Your task to perform on an android device: Do I have any events this weekend? Image 0: 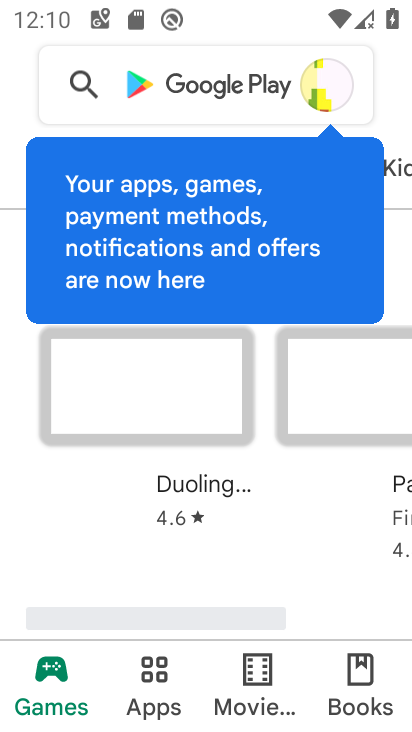
Step 0: press home button
Your task to perform on an android device: Do I have any events this weekend? Image 1: 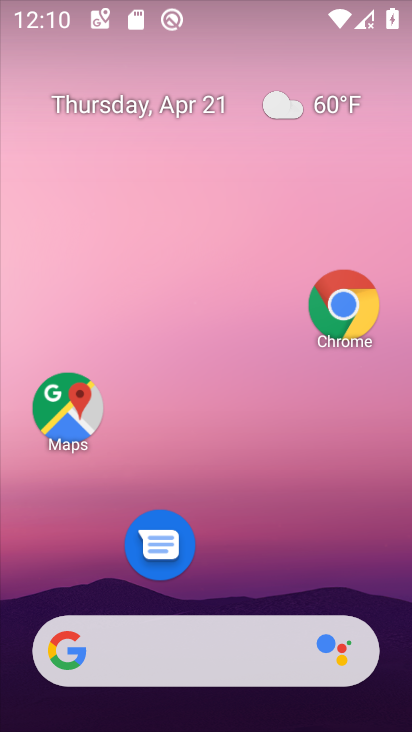
Step 1: drag from (271, 642) to (197, 32)
Your task to perform on an android device: Do I have any events this weekend? Image 2: 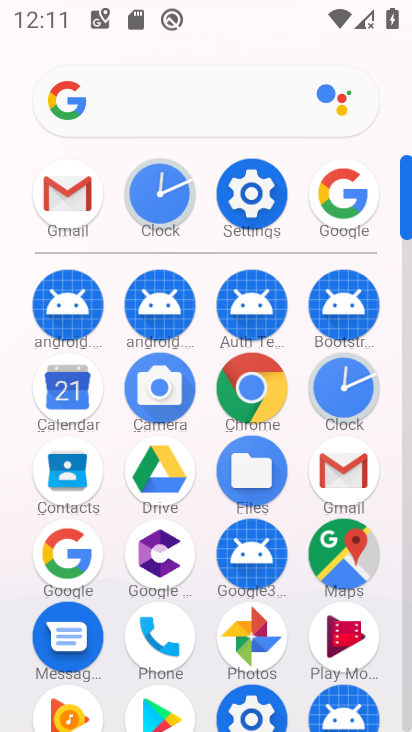
Step 2: drag from (200, 504) to (189, 357)
Your task to perform on an android device: Do I have any events this weekend? Image 3: 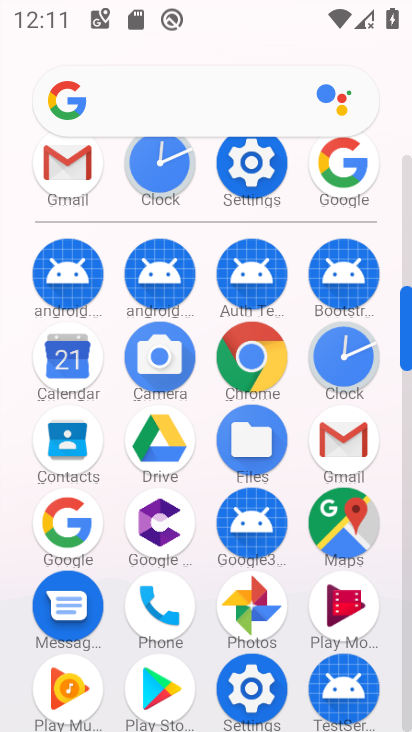
Step 3: click (77, 367)
Your task to perform on an android device: Do I have any events this weekend? Image 4: 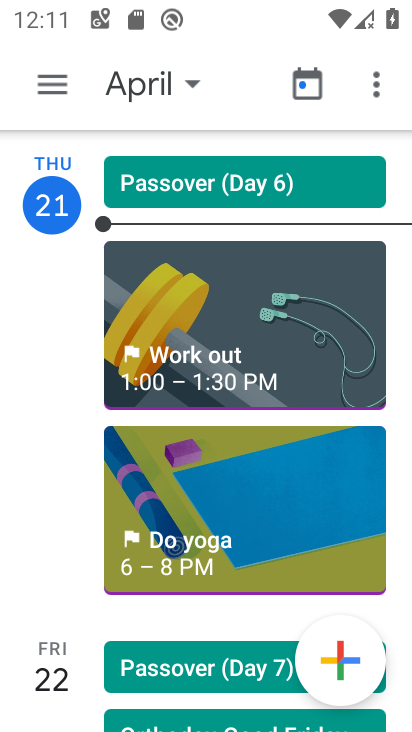
Step 4: click (184, 90)
Your task to perform on an android device: Do I have any events this weekend? Image 5: 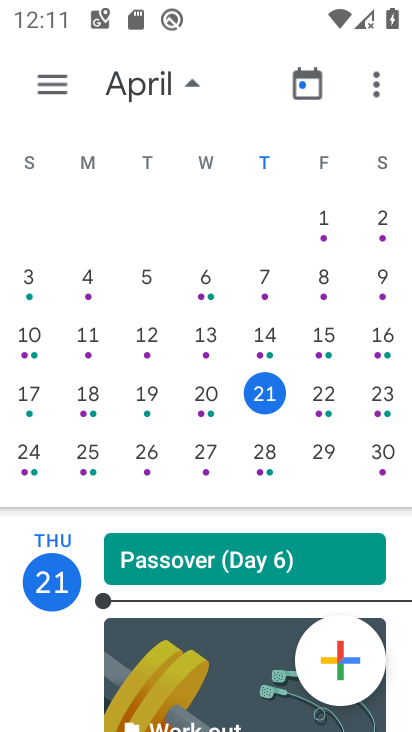
Step 5: click (381, 406)
Your task to perform on an android device: Do I have any events this weekend? Image 6: 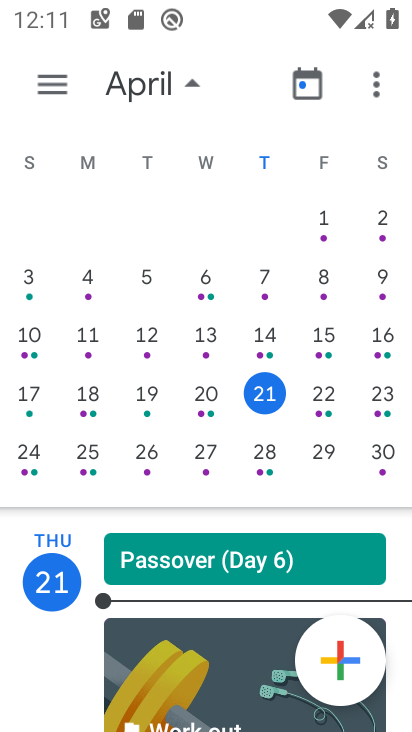
Step 6: click (386, 408)
Your task to perform on an android device: Do I have any events this weekend? Image 7: 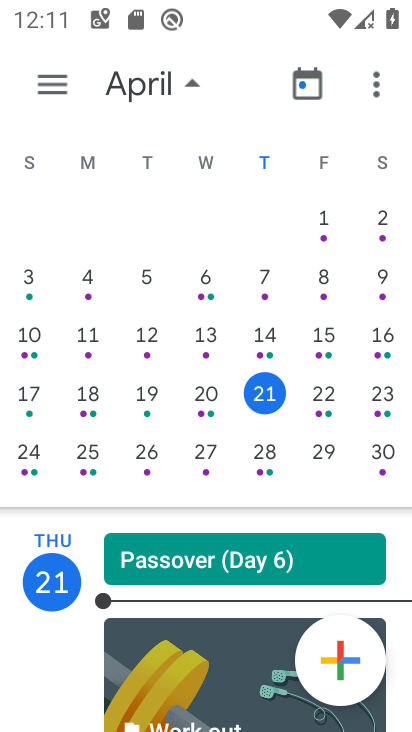
Step 7: click (386, 408)
Your task to perform on an android device: Do I have any events this weekend? Image 8: 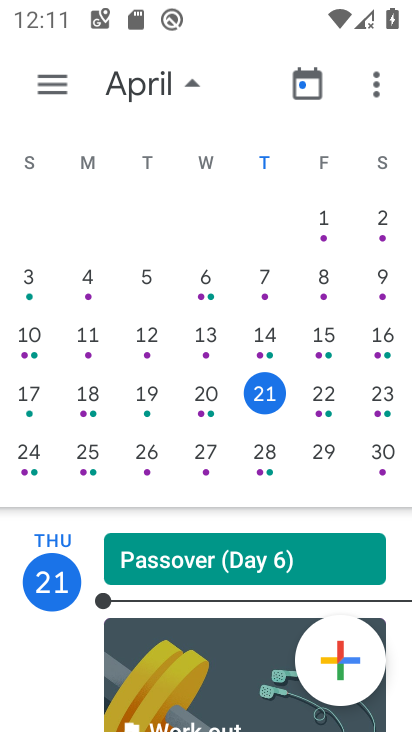
Step 8: click (392, 394)
Your task to perform on an android device: Do I have any events this weekend? Image 9: 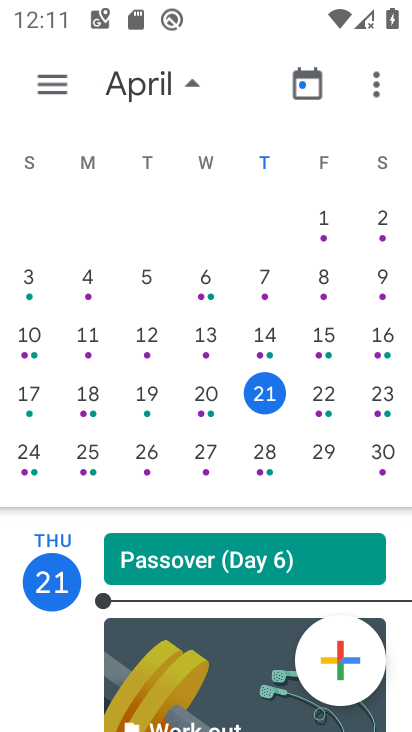
Step 9: click (392, 394)
Your task to perform on an android device: Do I have any events this weekend? Image 10: 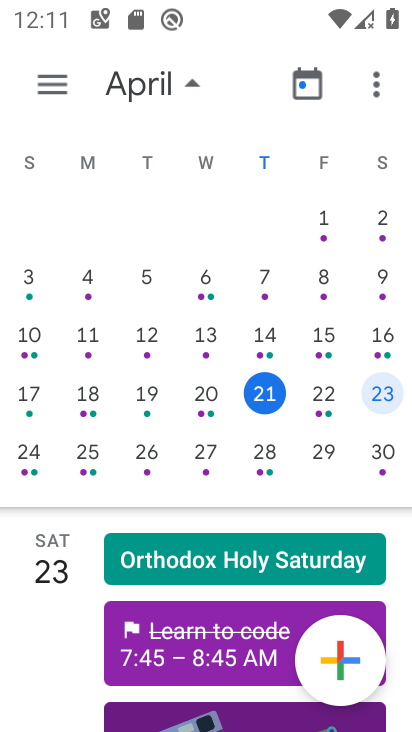
Step 10: task complete